Your task to perform on an android device: What is the recent news? Image 0: 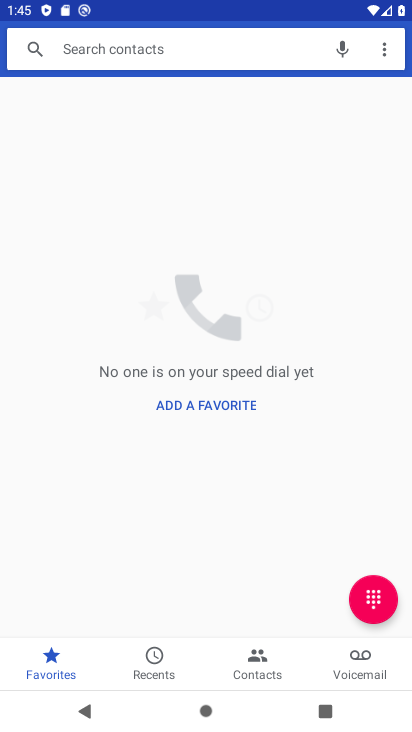
Step 0: press home button
Your task to perform on an android device: What is the recent news? Image 1: 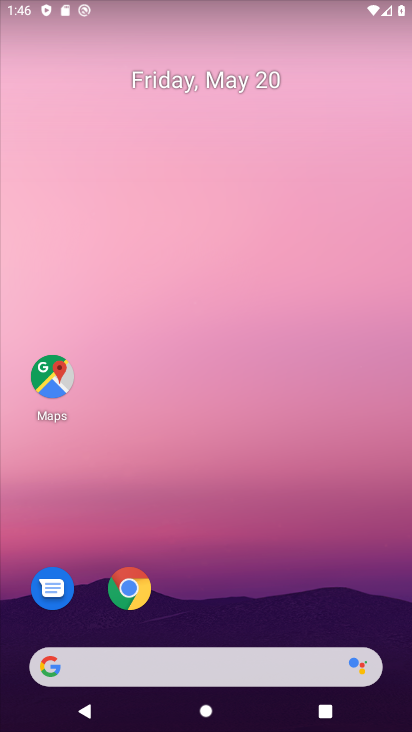
Step 1: task complete